Your task to perform on an android device: open app "Facebook Messenger" (install if not already installed) and enter user name: "divorce@inbox.com" and password: "caviar" Image 0: 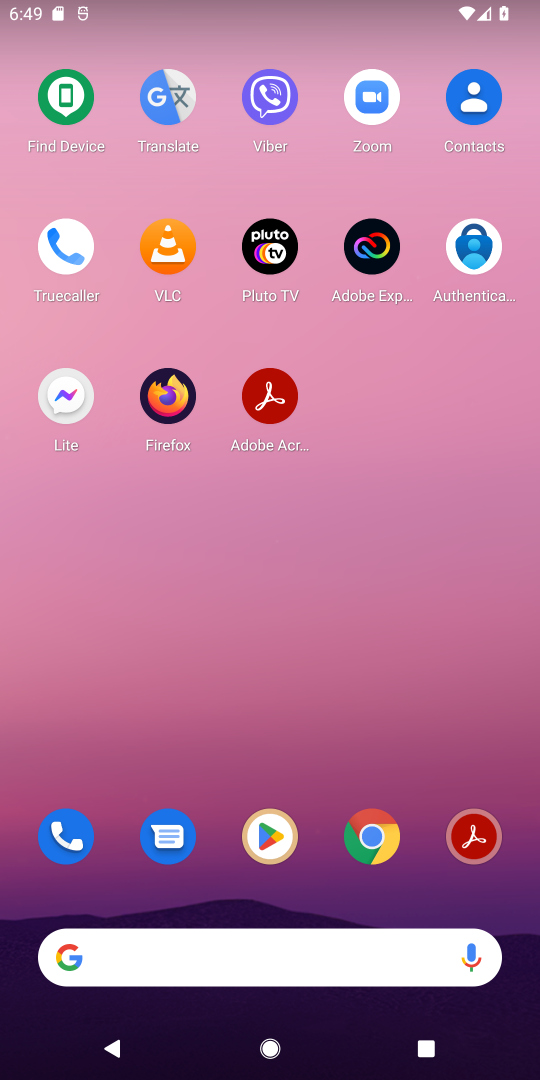
Step 0: press home button
Your task to perform on an android device: open app "Facebook Messenger" (install if not already installed) and enter user name: "divorce@inbox.com" and password: "caviar" Image 1: 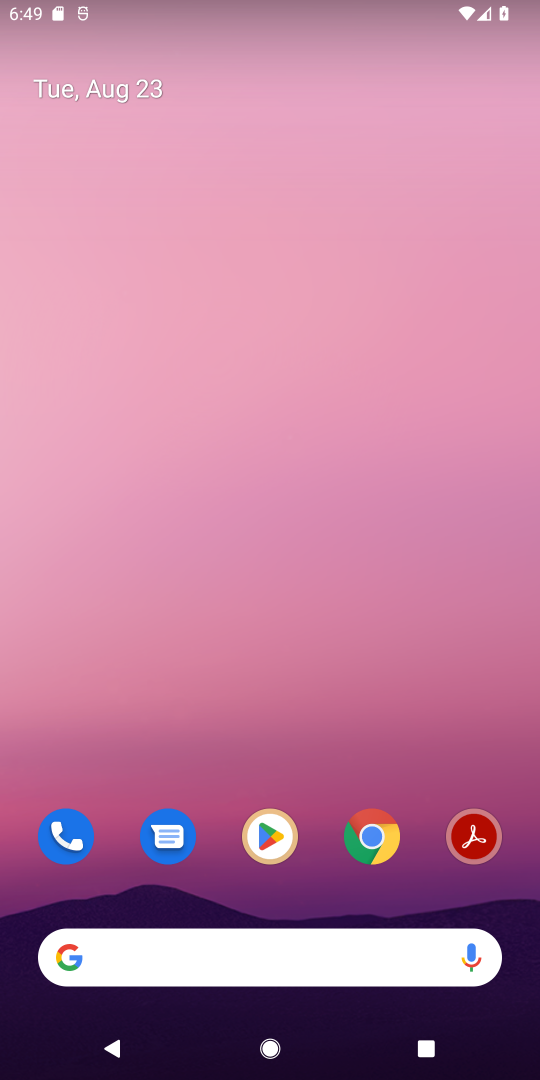
Step 1: click (278, 839)
Your task to perform on an android device: open app "Facebook Messenger" (install if not already installed) and enter user name: "divorce@inbox.com" and password: "caviar" Image 2: 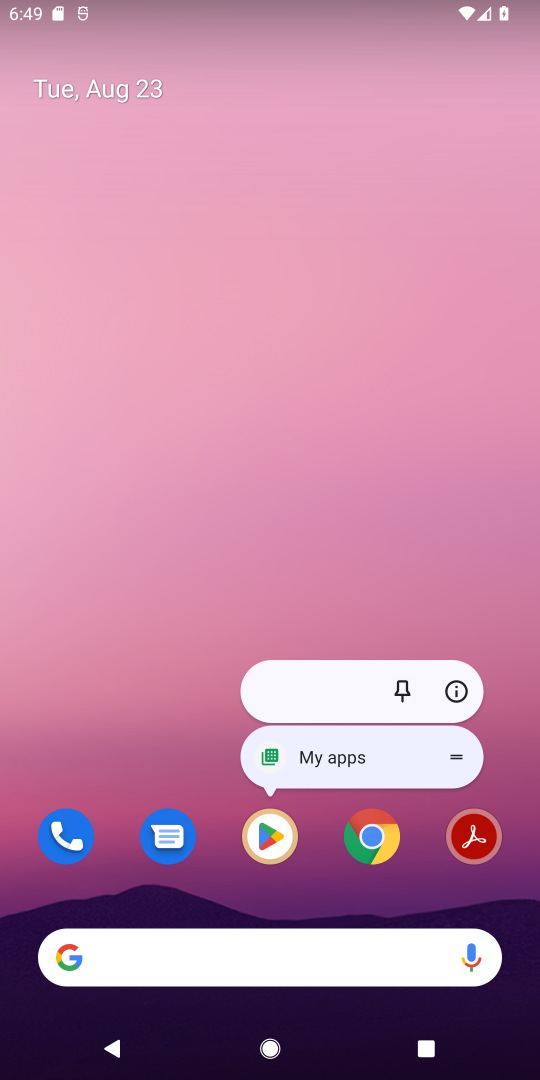
Step 2: click (279, 825)
Your task to perform on an android device: open app "Facebook Messenger" (install if not already installed) and enter user name: "divorce@inbox.com" and password: "caviar" Image 3: 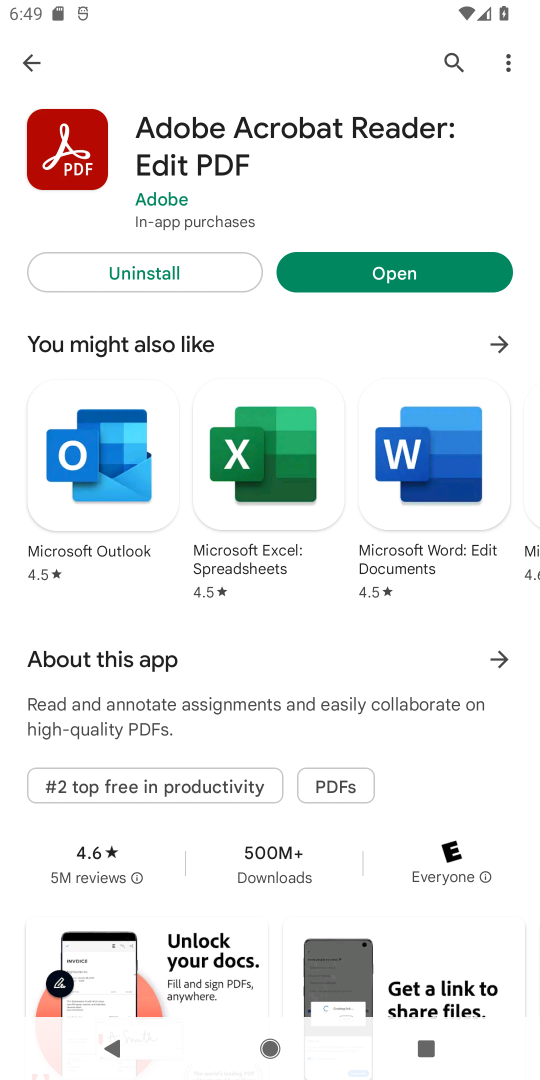
Step 3: click (454, 45)
Your task to perform on an android device: open app "Facebook Messenger" (install if not already installed) and enter user name: "divorce@inbox.com" and password: "caviar" Image 4: 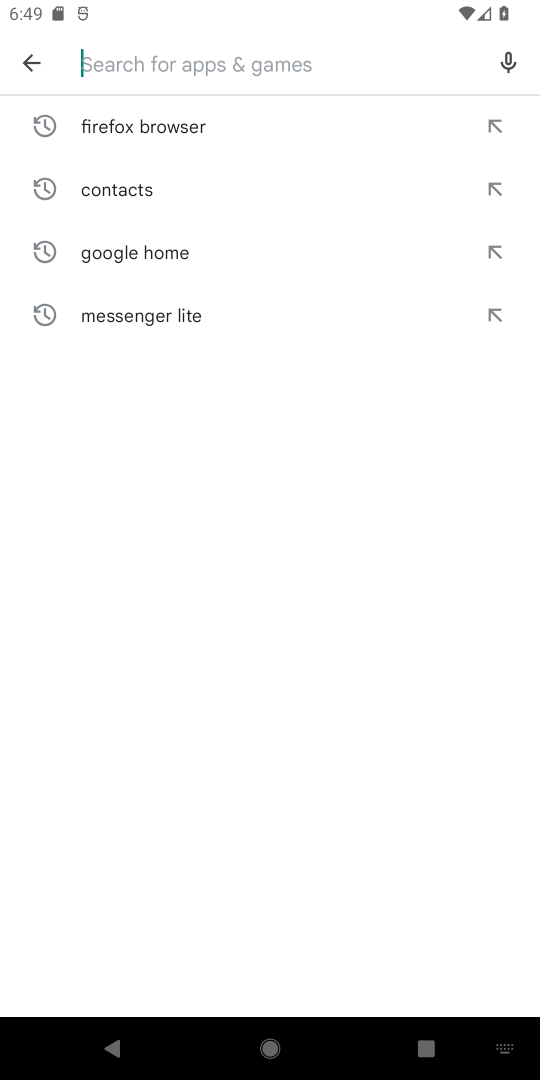
Step 4: type "Facebook Messenger"
Your task to perform on an android device: open app "Facebook Messenger" (install if not already installed) and enter user name: "divorce@inbox.com" and password: "caviar" Image 5: 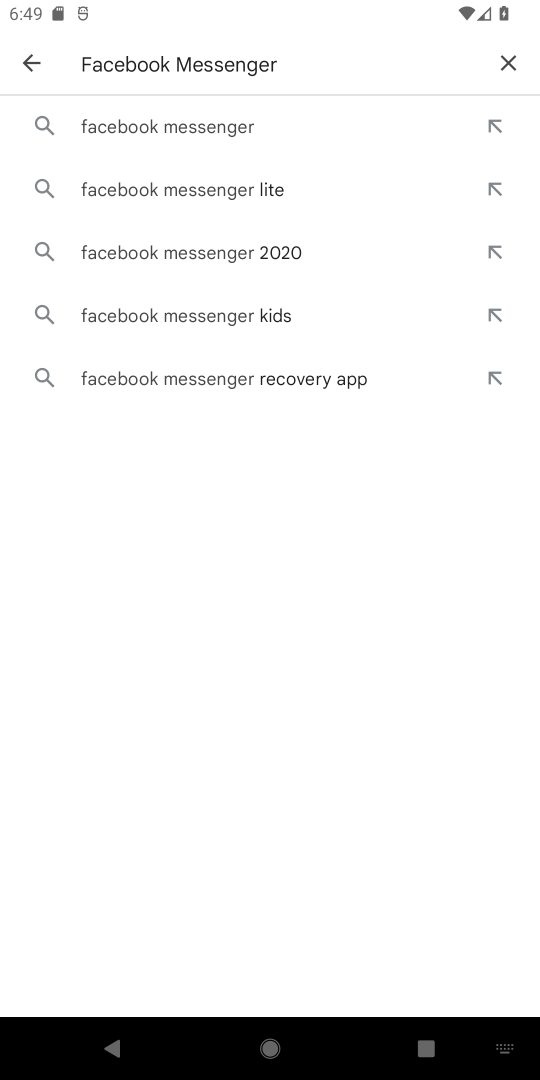
Step 5: click (243, 115)
Your task to perform on an android device: open app "Facebook Messenger" (install if not already installed) and enter user name: "divorce@inbox.com" and password: "caviar" Image 6: 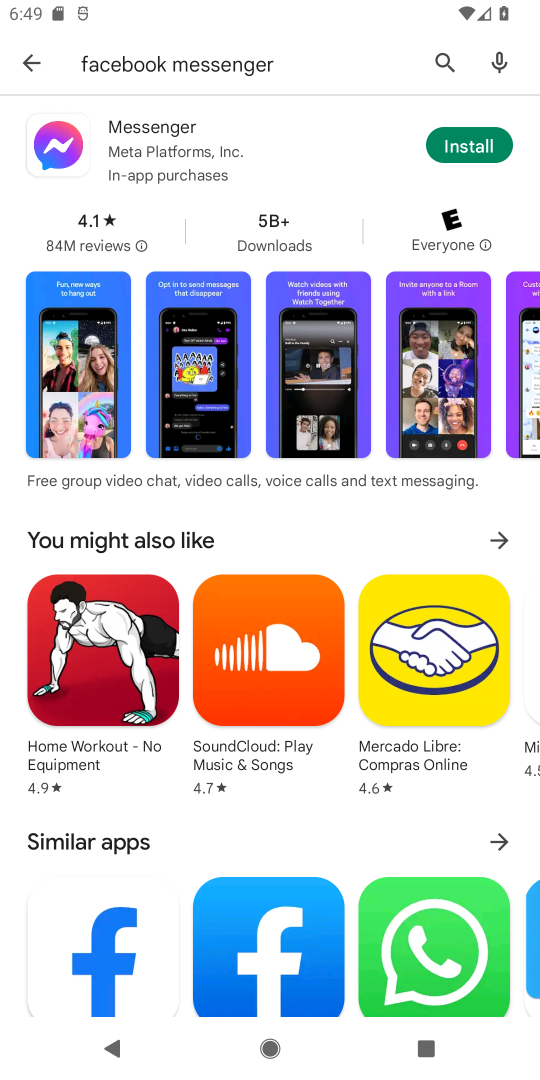
Step 6: click (459, 149)
Your task to perform on an android device: open app "Facebook Messenger" (install if not already installed) and enter user name: "divorce@inbox.com" and password: "caviar" Image 7: 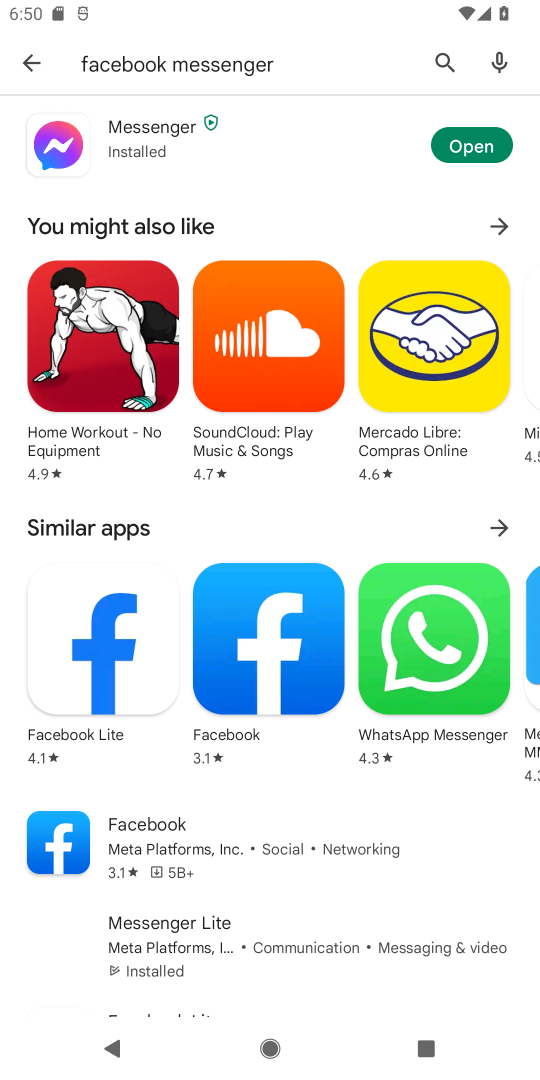
Step 7: click (482, 154)
Your task to perform on an android device: open app "Facebook Messenger" (install if not already installed) and enter user name: "divorce@inbox.com" and password: "caviar" Image 8: 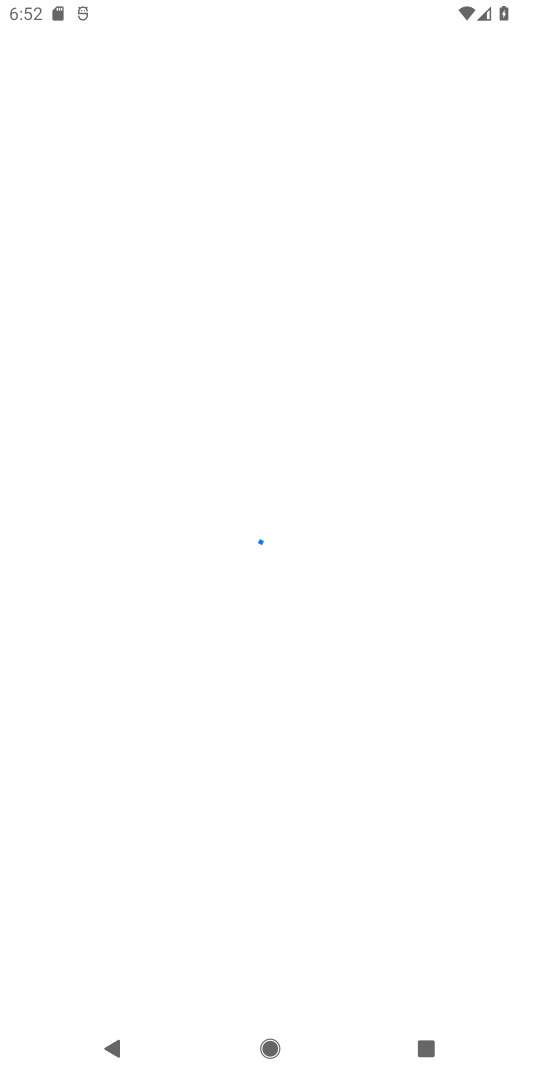
Step 8: task complete